Your task to perform on an android device: turn on airplane mode Image 0: 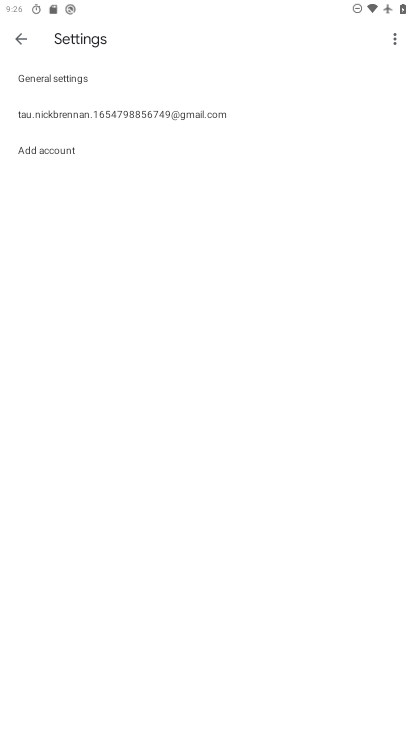
Step 0: press home button
Your task to perform on an android device: turn on airplane mode Image 1: 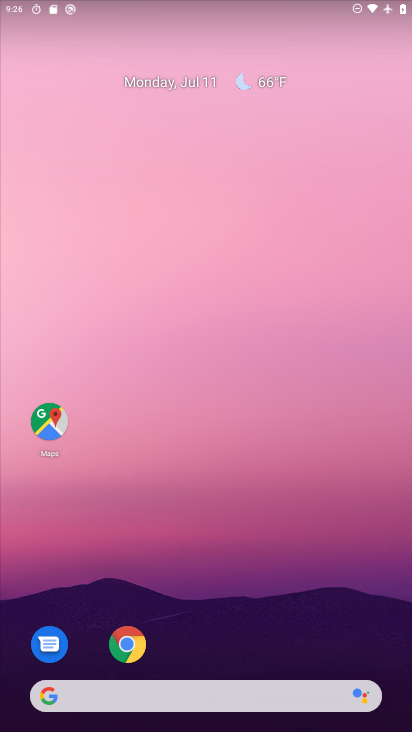
Step 1: drag from (259, 573) to (248, 17)
Your task to perform on an android device: turn on airplane mode Image 2: 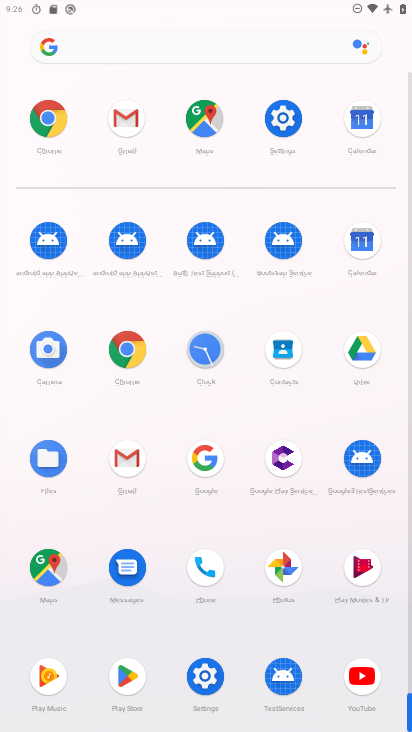
Step 2: click (286, 115)
Your task to perform on an android device: turn on airplane mode Image 3: 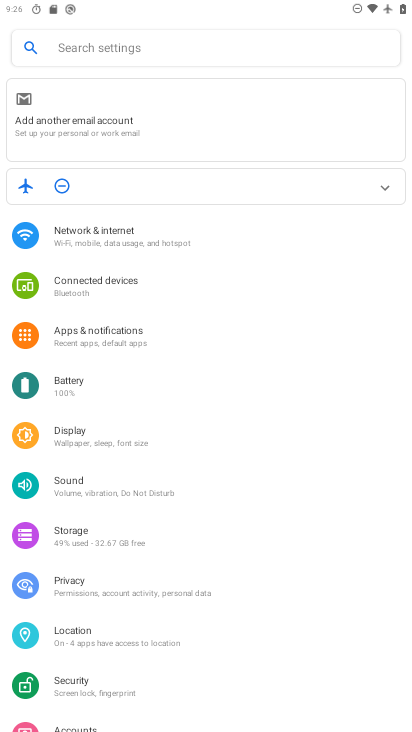
Step 3: click (122, 238)
Your task to perform on an android device: turn on airplane mode Image 4: 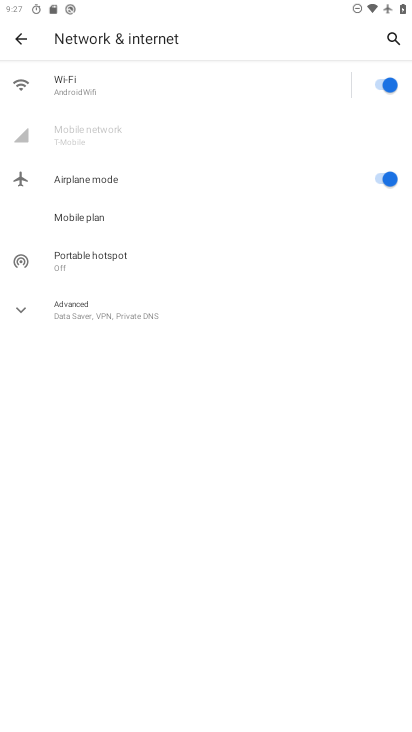
Step 4: task complete